Your task to perform on an android device: change the clock display to show seconds Image 0: 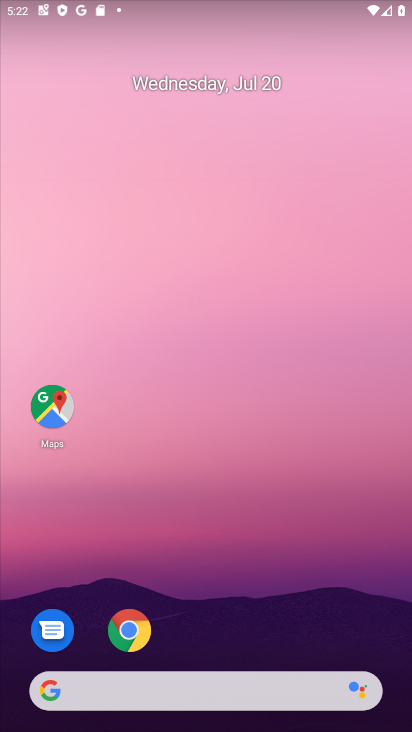
Step 0: drag from (257, 683) to (281, 49)
Your task to perform on an android device: change the clock display to show seconds Image 1: 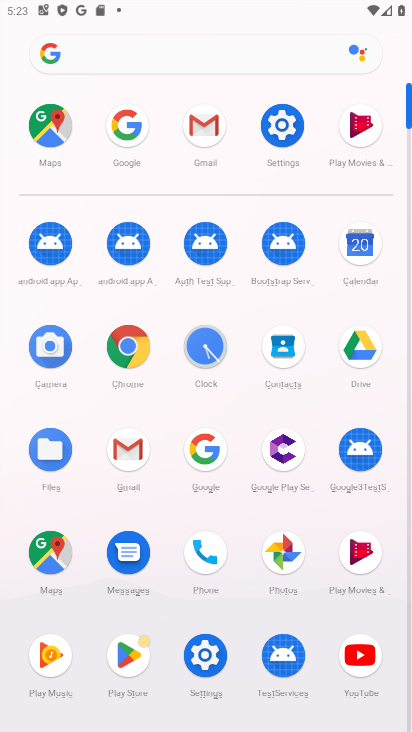
Step 1: click (205, 346)
Your task to perform on an android device: change the clock display to show seconds Image 2: 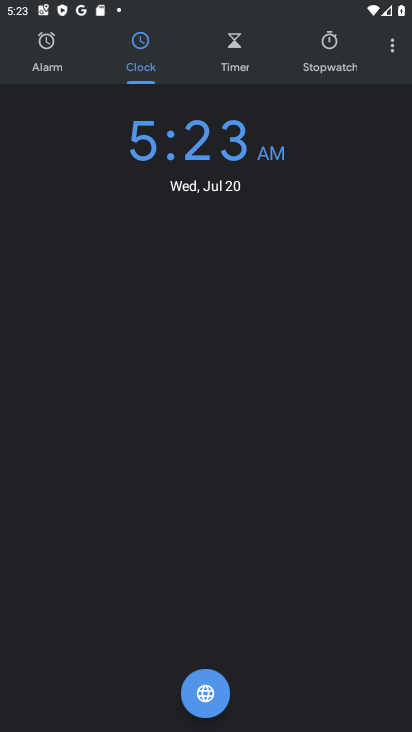
Step 2: click (392, 46)
Your task to perform on an android device: change the clock display to show seconds Image 3: 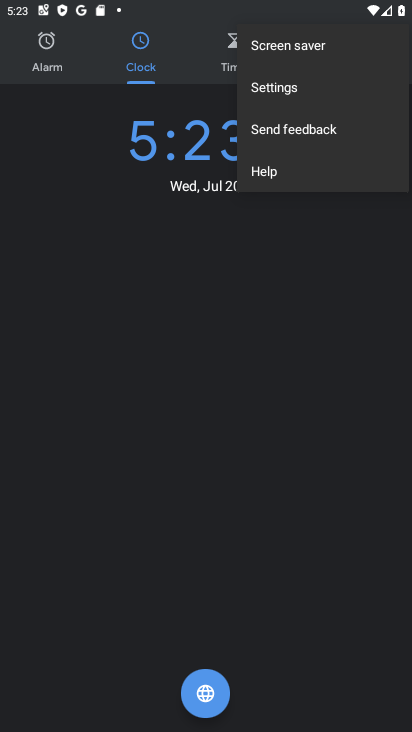
Step 3: click (290, 89)
Your task to perform on an android device: change the clock display to show seconds Image 4: 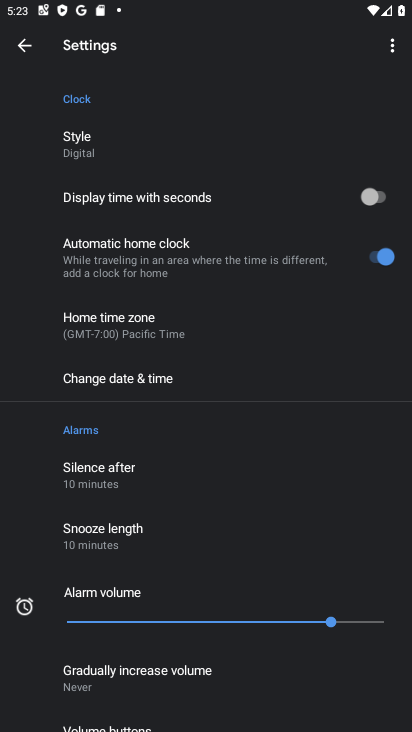
Step 4: click (366, 195)
Your task to perform on an android device: change the clock display to show seconds Image 5: 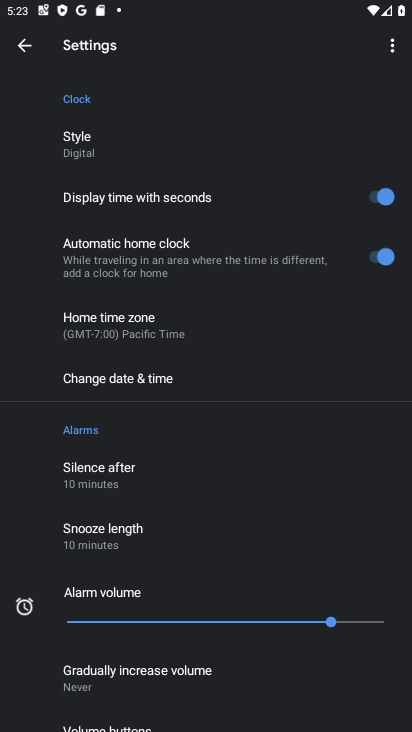
Step 5: task complete